Your task to perform on an android device: open app "Facebook Lite" (install if not already installed) Image 0: 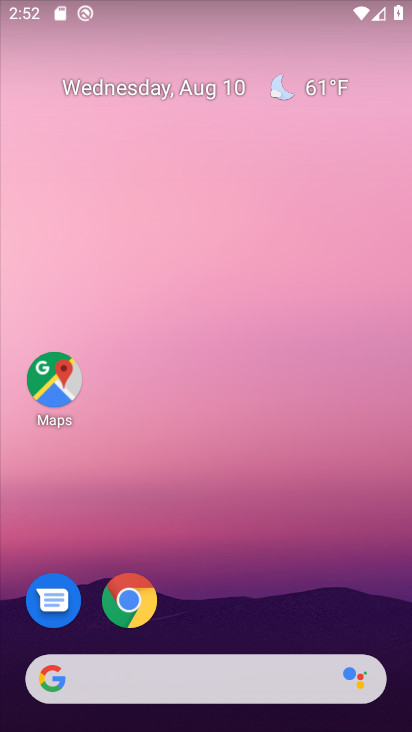
Step 0: drag from (261, 633) to (249, 74)
Your task to perform on an android device: open app "Facebook Lite" (install if not already installed) Image 1: 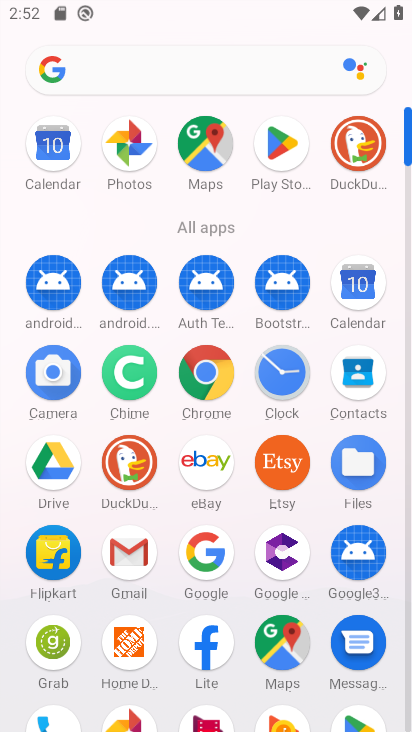
Step 1: drag from (203, 655) to (228, 190)
Your task to perform on an android device: open app "Facebook Lite" (install if not already installed) Image 2: 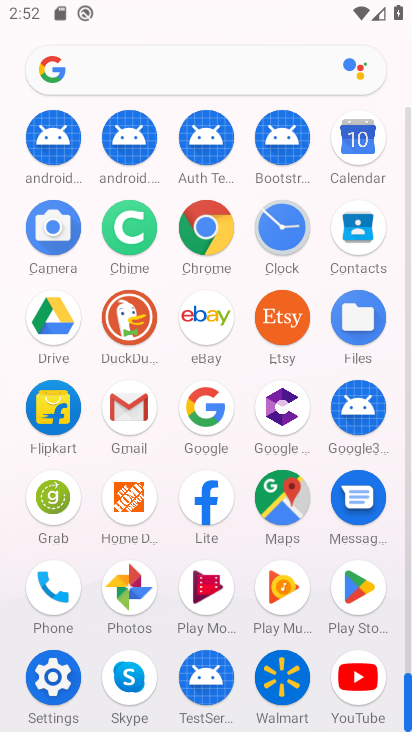
Step 2: click (356, 571)
Your task to perform on an android device: open app "Facebook Lite" (install if not already installed) Image 3: 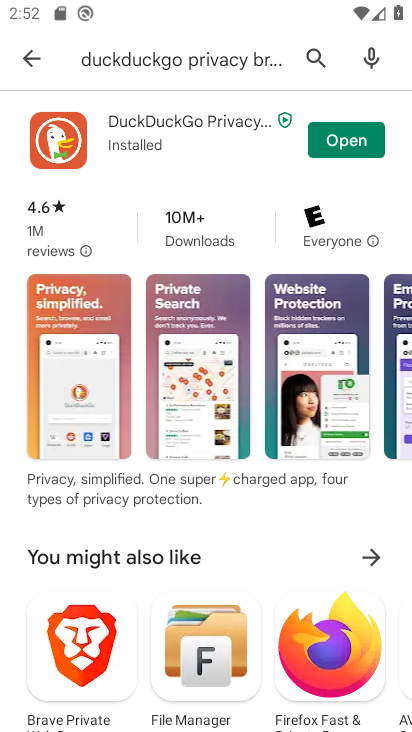
Step 3: click (312, 56)
Your task to perform on an android device: open app "Facebook Lite" (install if not already installed) Image 4: 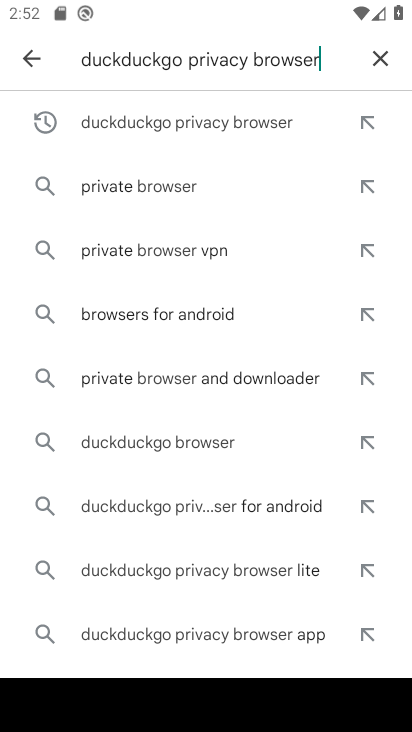
Step 4: click (380, 60)
Your task to perform on an android device: open app "Facebook Lite" (install if not already installed) Image 5: 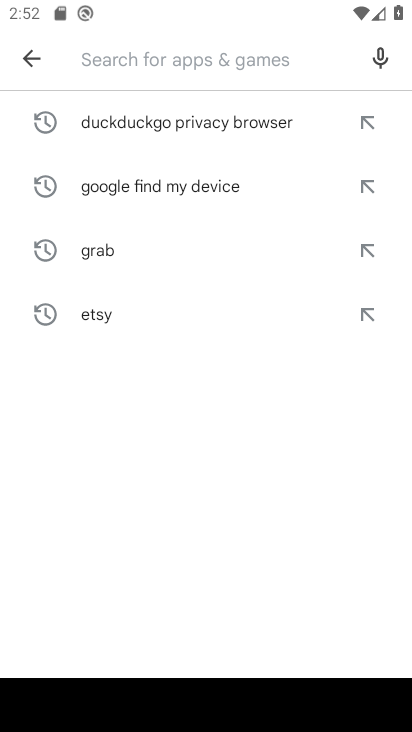
Step 5: click (157, 45)
Your task to perform on an android device: open app "Facebook Lite" (install if not already installed) Image 6: 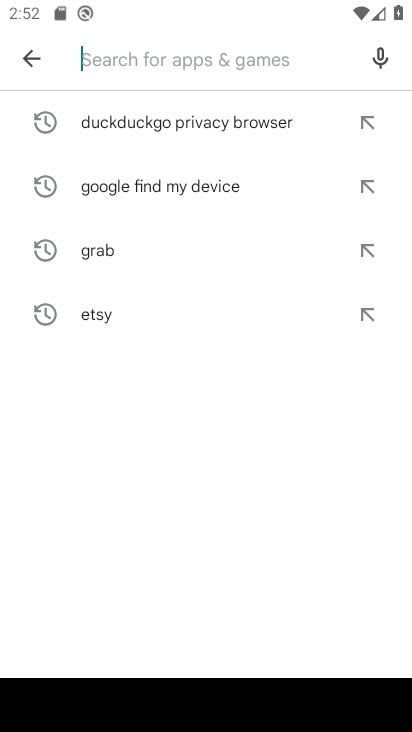
Step 6: type "Facebook Lite"
Your task to perform on an android device: open app "Facebook Lite" (install if not already installed) Image 7: 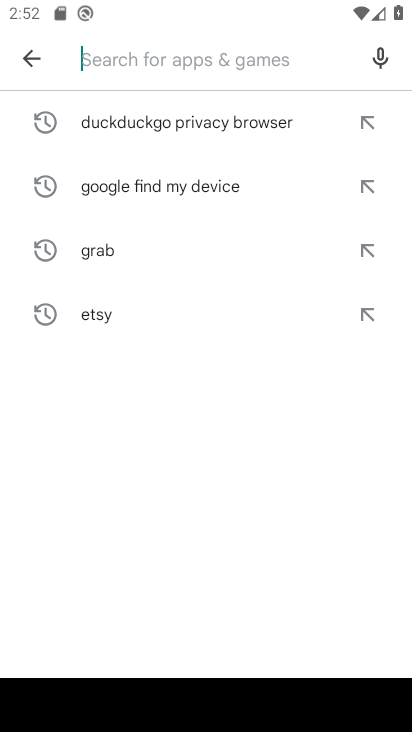
Step 7: click (157, 455)
Your task to perform on an android device: open app "Facebook Lite" (install if not already installed) Image 8: 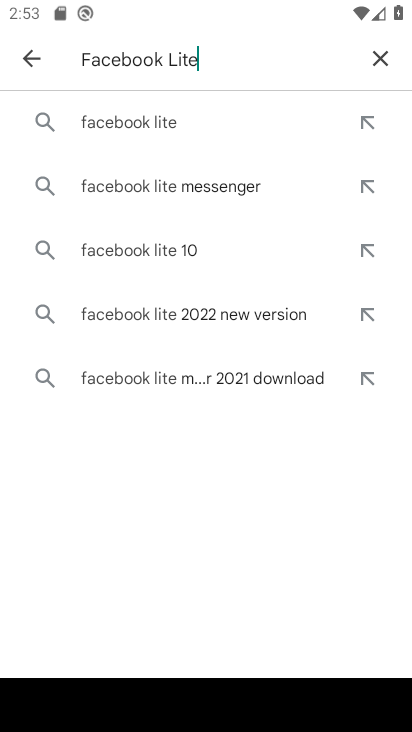
Step 8: click (172, 117)
Your task to perform on an android device: open app "Facebook Lite" (install if not already installed) Image 9: 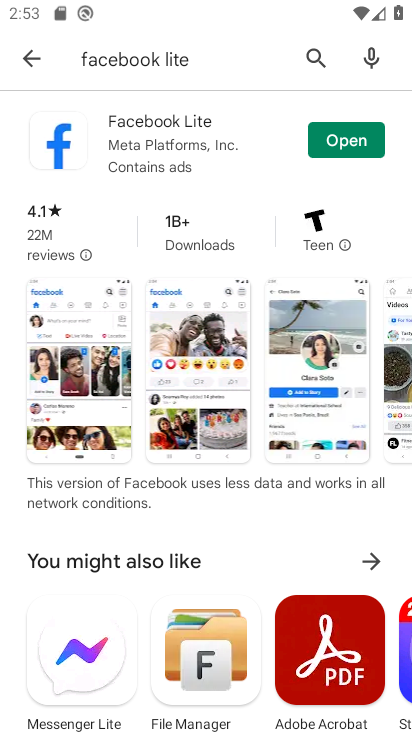
Step 9: click (336, 153)
Your task to perform on an android device: open app "Facebook Lite" (install if not already installed) Image 10: 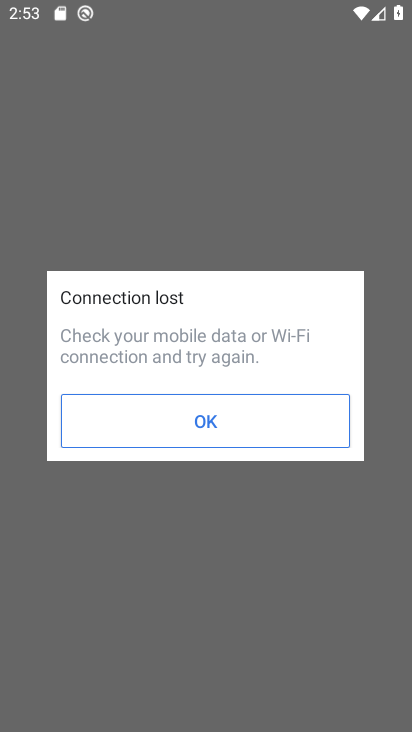
Step 10: click (224, 421)
Your task to perform on an android device: open app "Facebook Lite" (install if not already installed) Image 11: 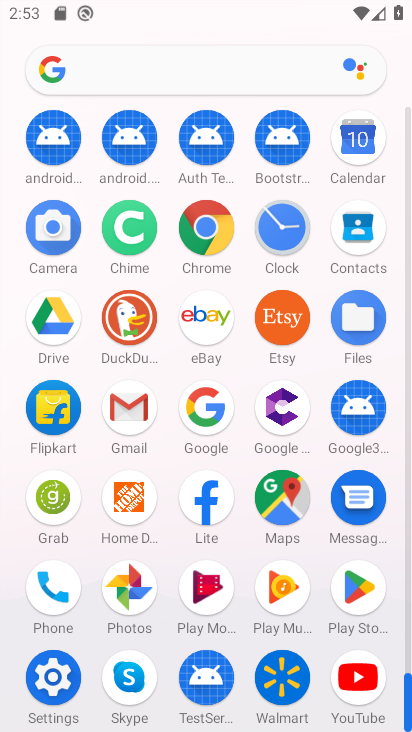
Step 11: click (208, 498)
Your task to perform on an android device: open app "Facebook Lite" (install if not already installed) Image 12: 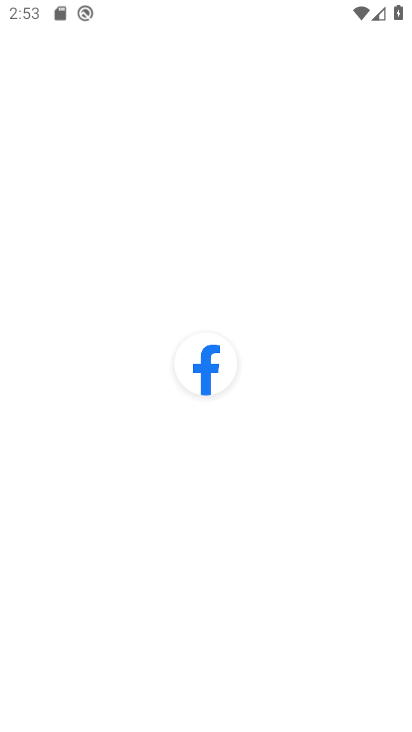
Step 12: task complete